Your task to perform on an android device: Open Reddit.com Image 0: 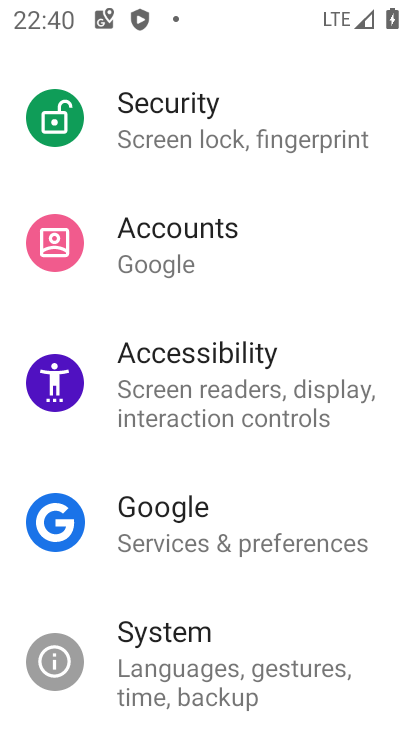
Step 0: press home button
Your task to perform on an android device: Open Reddit.com Image 1: 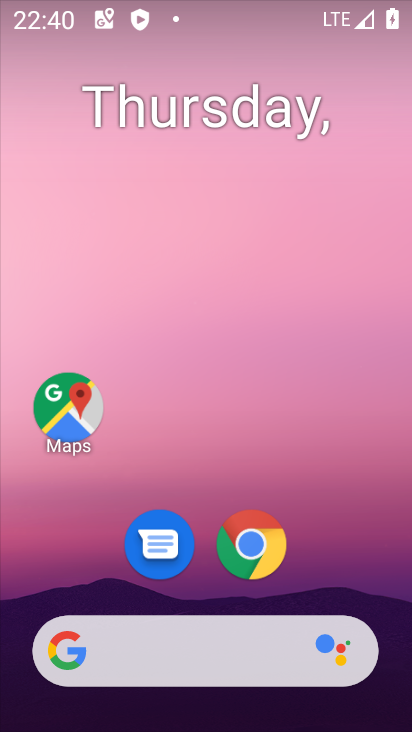
Step 1: click (262, 545)
Your task to perform on an android device: Open Reddit.com Image 2: 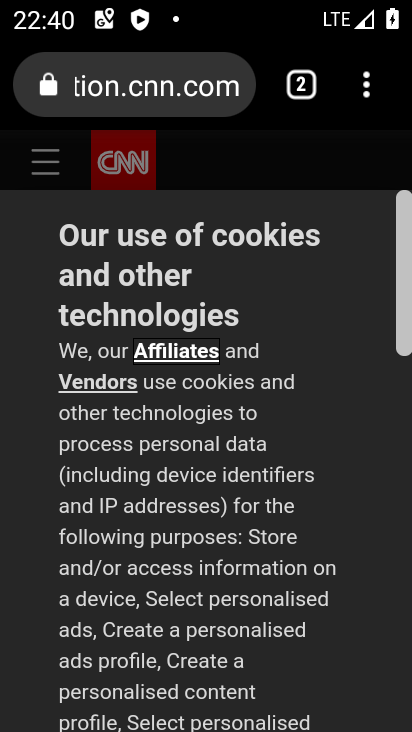
Step 2: click (301, 89)
Your task to perform on an android device: Open Reddit.com Image 3: 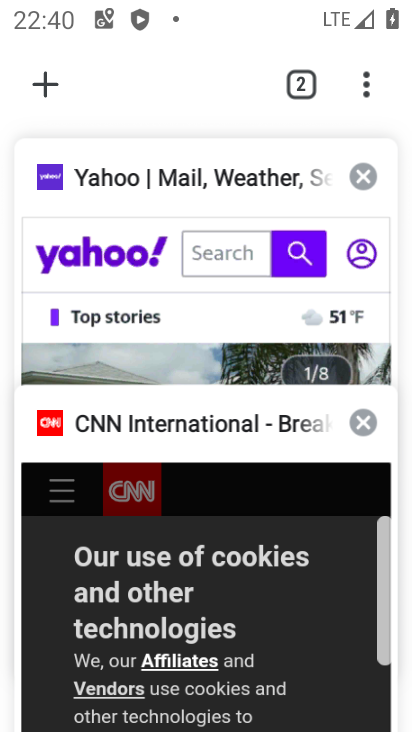
Step 3: click (45, 82)
Your task to perform on an android device: Open Reddit.com Image 4: 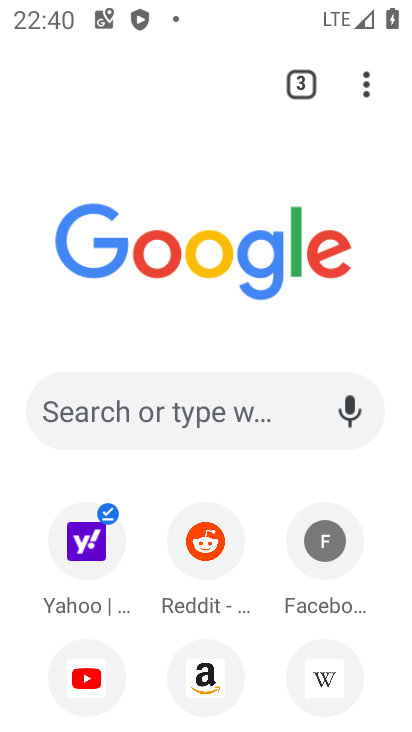
Step 4: click (123, 414)
Your task to perform on an android device: Open Reddit.com Image 5: 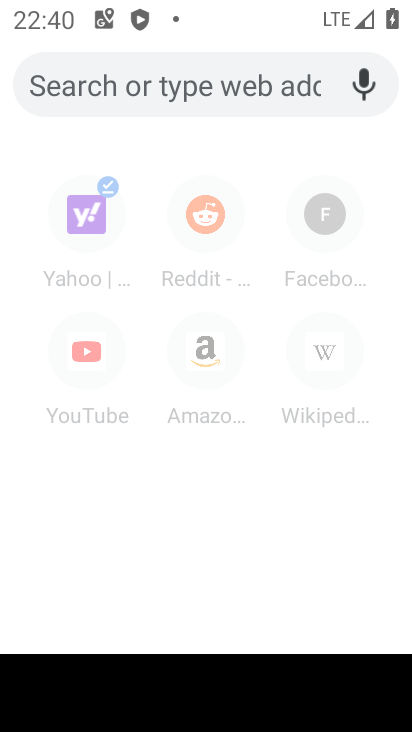
Step 5: type "reddit.com"
Your task to perform on an android device: Open Reddit.com Image 6: 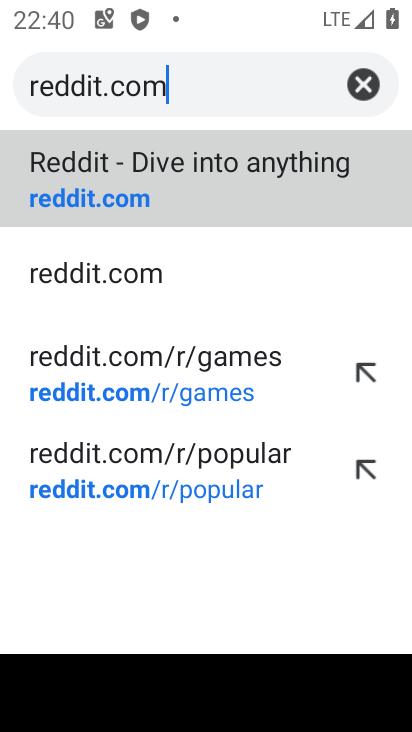
Step 6: click (198, 184)
Your task to perform on an android device: Open Reddit.com Image 7: 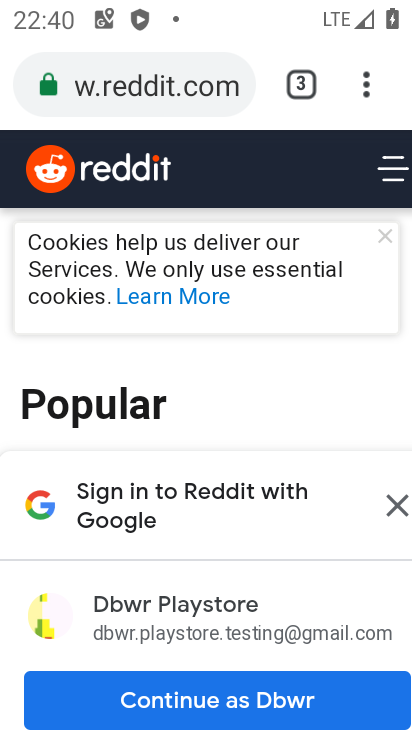
Step 7: task complete